Your task to perform on an android device: Go to battery settings Image 0: 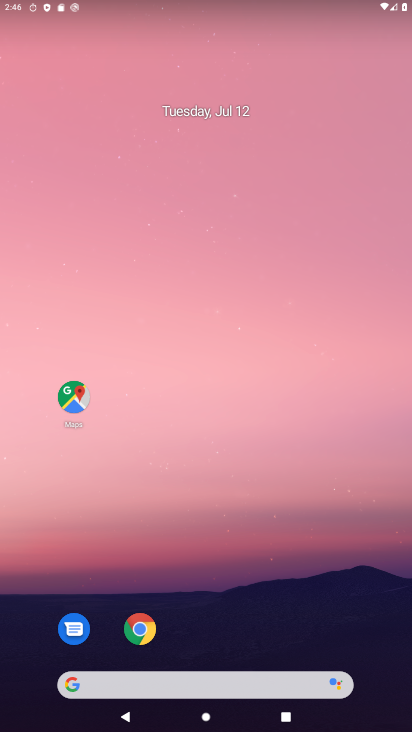
Step 0: drag from (178, 644) to (213, 80)
Your task to perform on an android device: Go to battery settings Image 1: 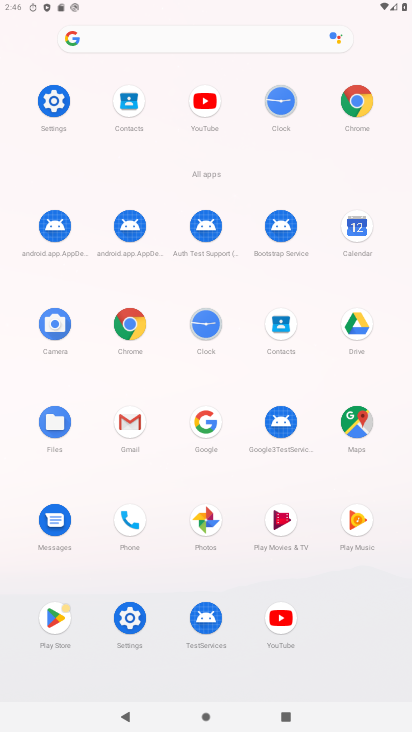
Step 1: click (128, 623)
Your task to perform on an android device: Go to battery settings Image 2: 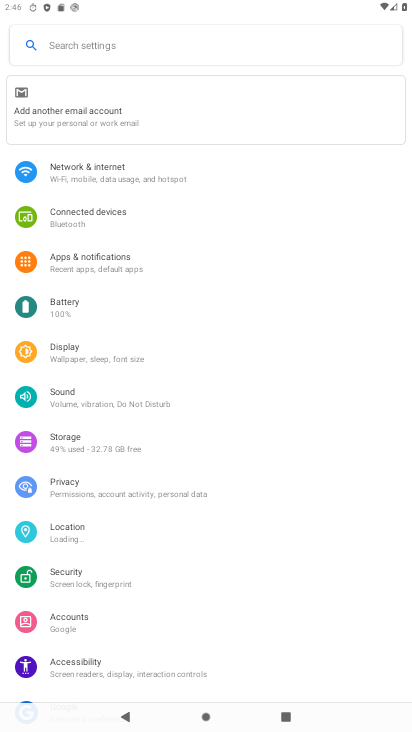
Step 2: drag from (128, 615) to (130, 449)
Your task to perform on an android device: Go to battery settings Image 3: 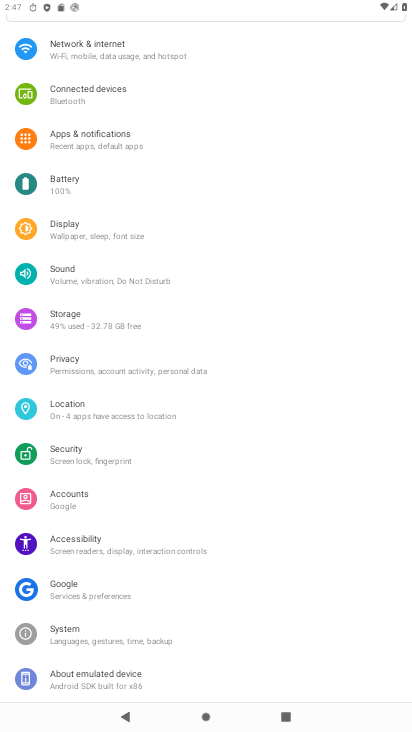
Step 3: click (70, 178)
Your task to perform on an android device: Go to battery settings Image 4: 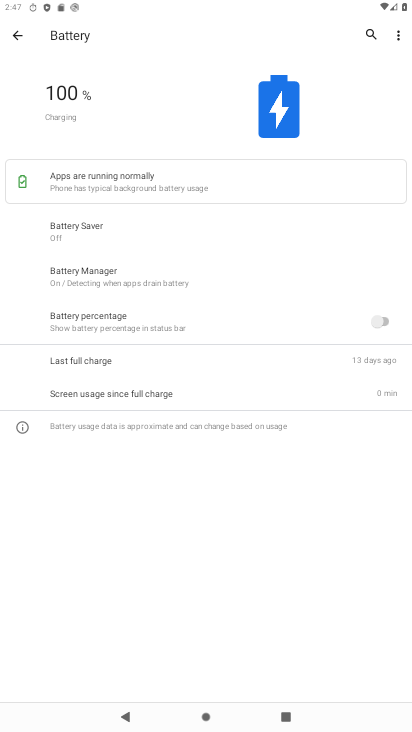
Step 4: task complete